Your task to perform on an android device: turn on translation in the chrome app Image 0: 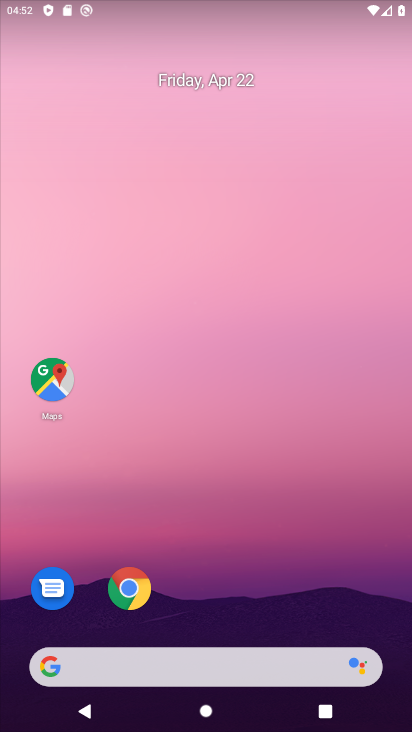
Step 0: drag from (226, 512) to (243, 142)
Your task to perform on an android device: turn on translation in the chrome app Image 1: 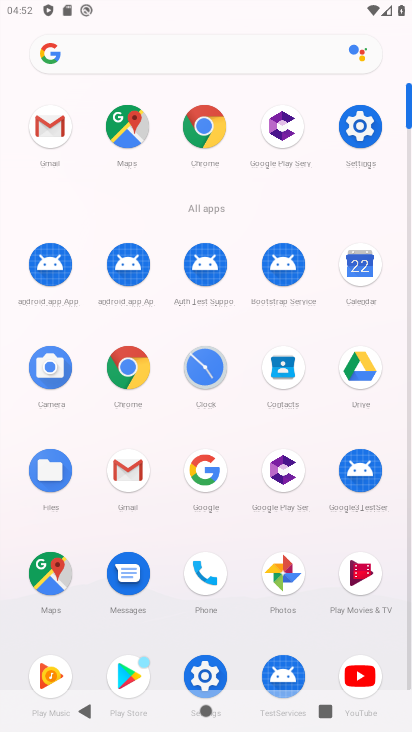
Step 1: click (206, 126)
Your task to perform on an android device: turn on translation in the chrome app Image 2: 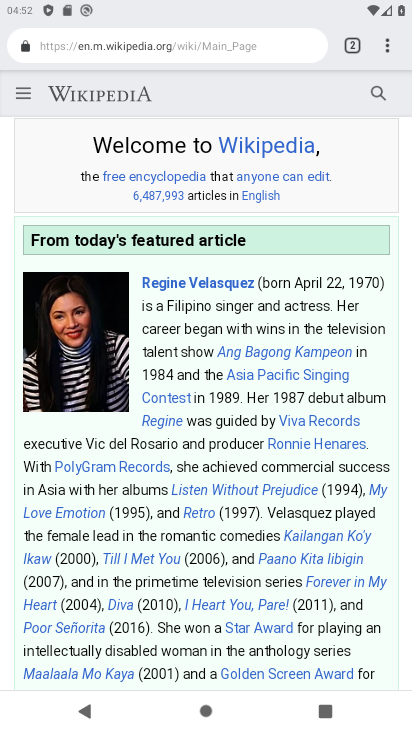
Step 2: click (386, 40)
Your task to perform on an android device: turn on translation in the chrome app Image 3: 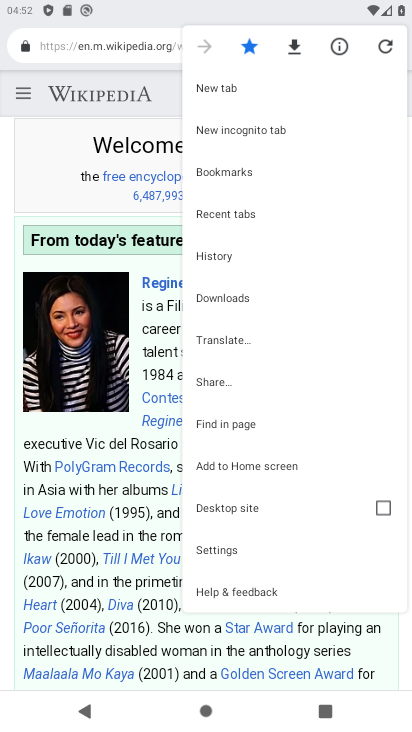
Step 3: click (201, 547)
Your task to perform on an android device: turn on translation in the chrome app Image 4: 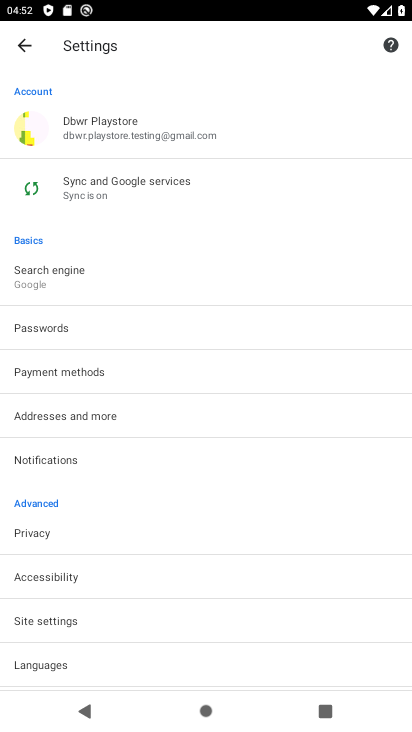
Step 4: click (102, 661)
Your task to perform on an android device: turn on translation in the chrome app Image 5: 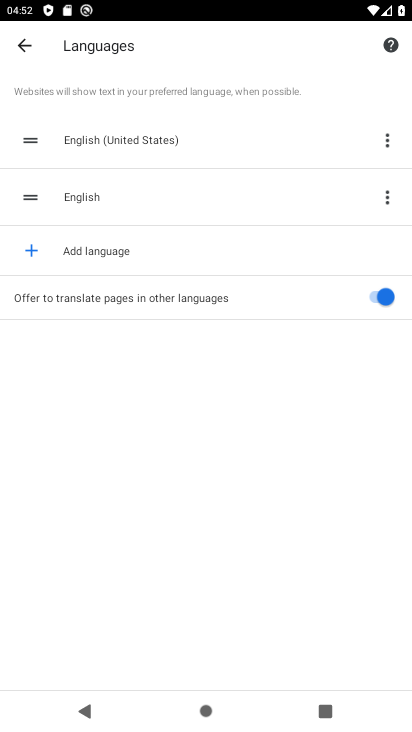
Step 5: task complete